Your task to perform on an android device: add a label to a message in the gmail app Image 0: 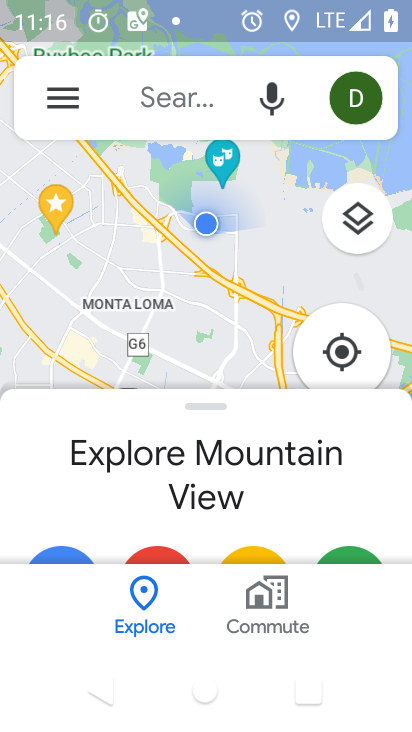
Step 0: press home button
Your task to perform on an android device: add a label to a message in the gmail app Image 1: 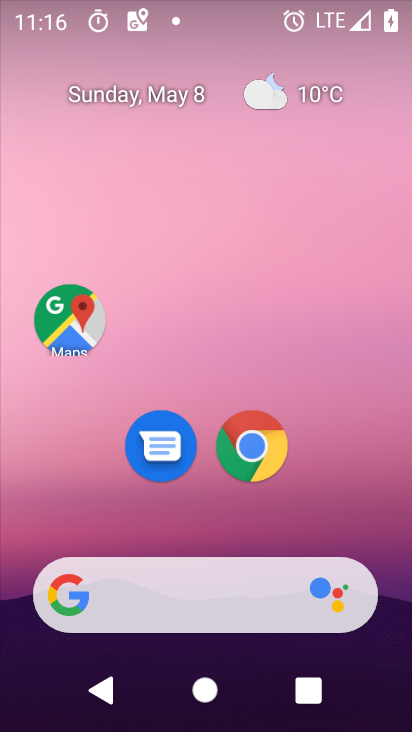
Step 1: drag from (367, 301) to (370, 45)
Your task to perform on an android device: add a label to a message in the gmail app Image 2: 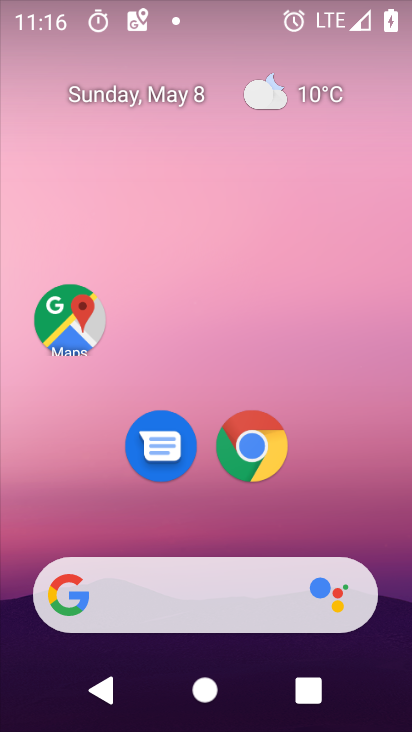
Step 2: drag from (371, 552) to (326, 7)
Your task to perform on an android device: add a label to a message in the gmail app Image 3: 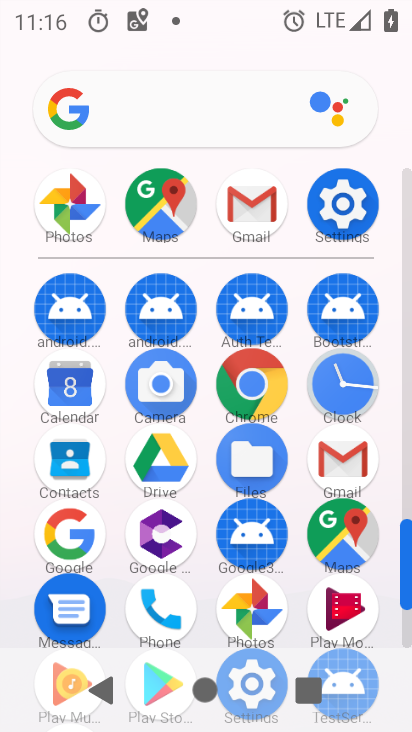
Step 3: click (238, 208)
Your task to perform on an android device: add a label to a message in the gmail app Image 4: 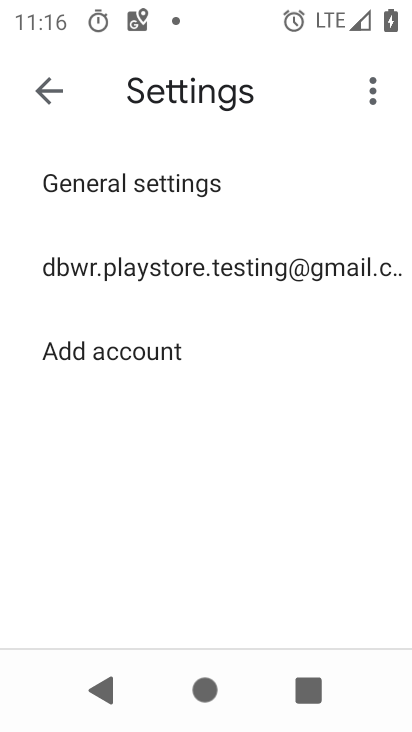
Step 4: click (51, 99)
Your task to perform on an android device: add a label to a message in the gmail app Image 5: 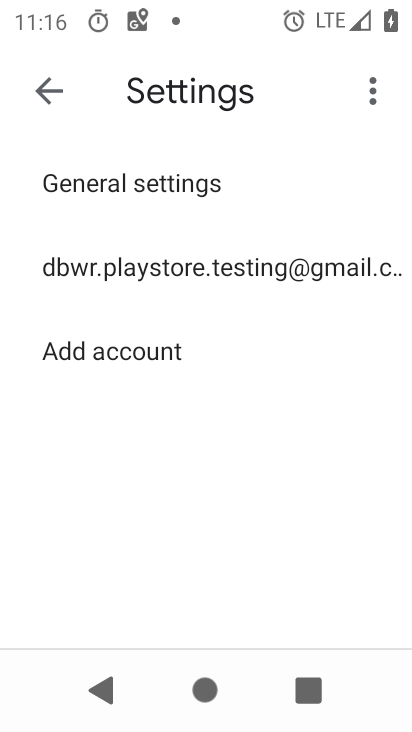
Step 5: click (51, 98)
Your task to perform on an android device: add a label to a message in the gmail app Image 6: 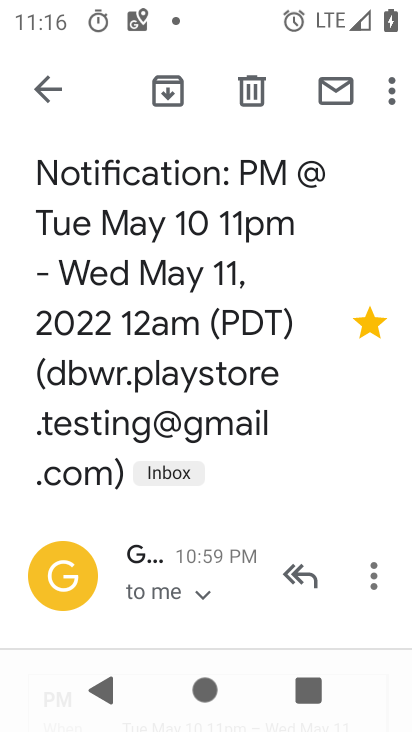
Step 6: click (52, 98)
Your task to perform on an android device: add a label to a message in the gmail app Image 7: 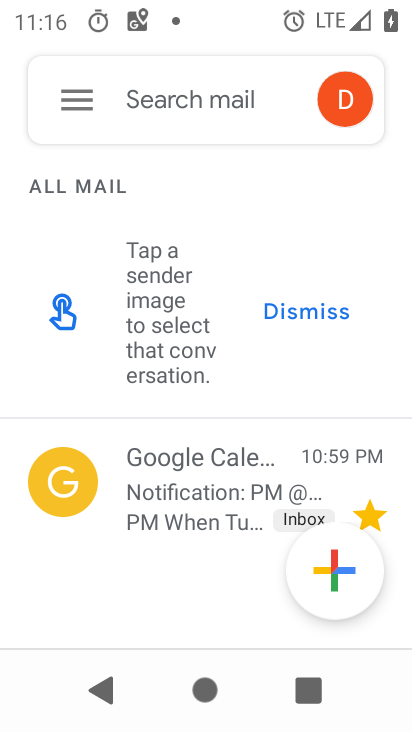
Step 7: task complete